Your task to perform on an android device: change notification settings in the gmail app Image 0: 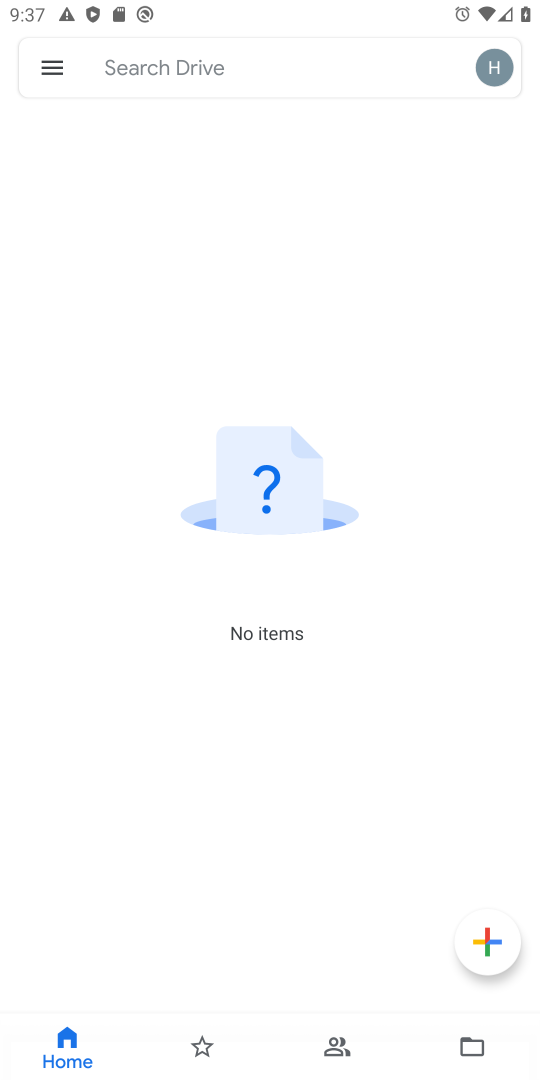
Step 0: press home button
Your task to perform on an android device: change notification settings in the gmail app Image 1: 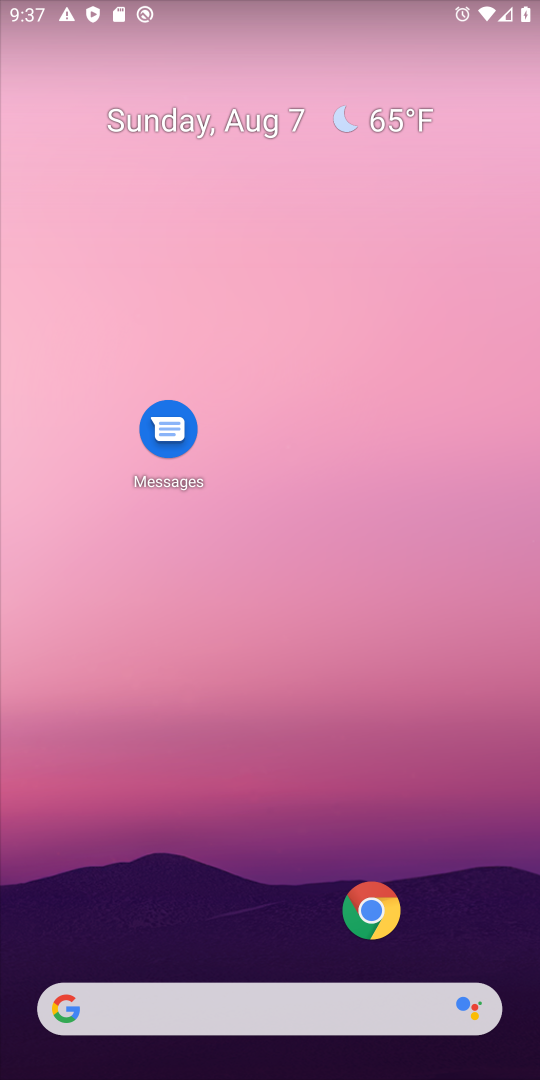
Step 1: drag from (233, 734) to (233, 388)
Your task to perform on an android device: change notification settings in the gmail app Image 2: 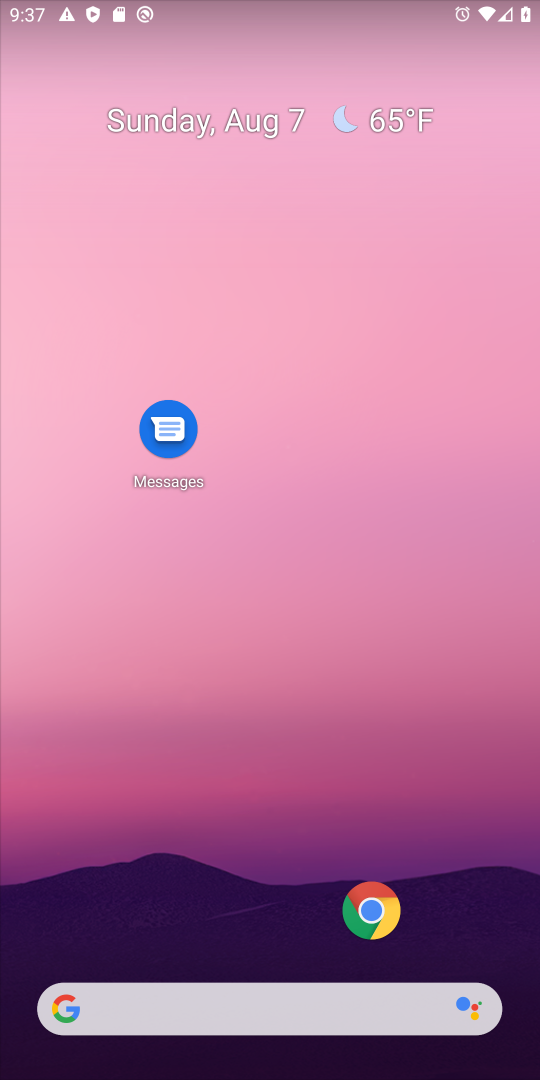
Step 2: drag from (216, 875) to (253, 534)
Your task to perform on an android device: change notification settings in the gmail app Image 3: 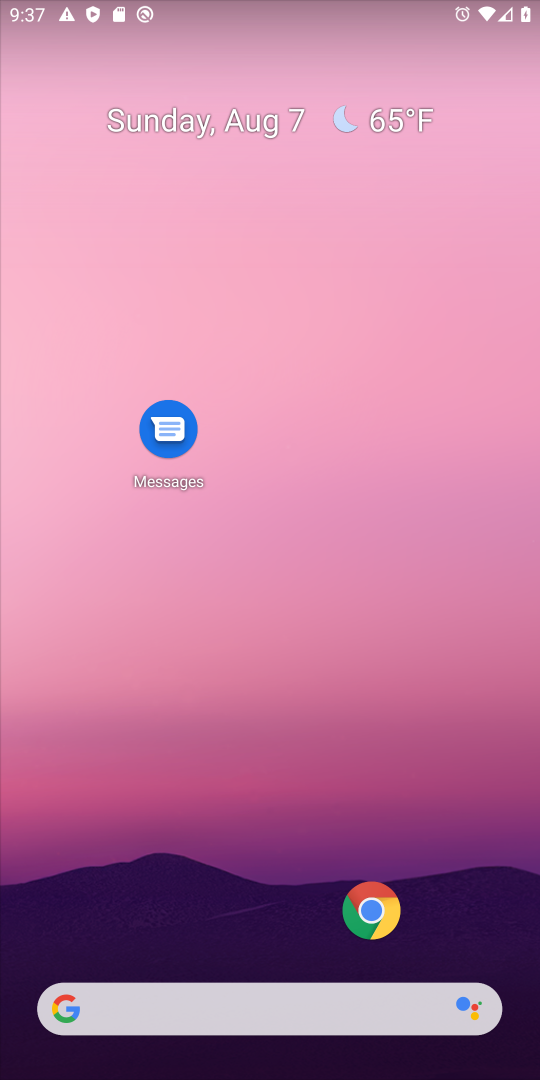
Step 3: drag from (260, 953) to (260, 545)
Your task to perform on an android device: change notification settings in the gmail app Image 4: 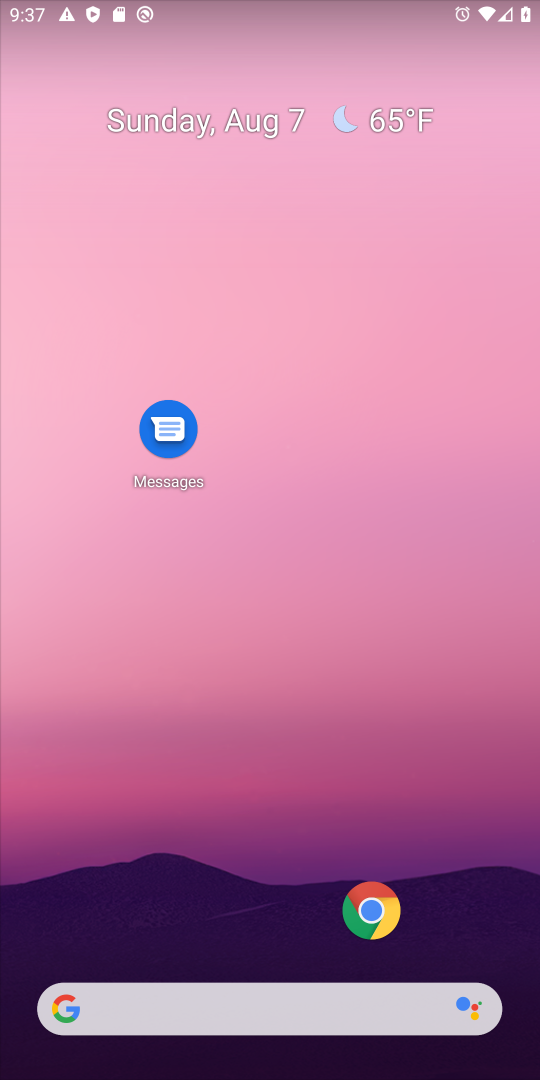
Step 4: drag from (243, 987) to (293, 420)
Your task to perform on an android device: change notification settings in the gmail app Image 5: 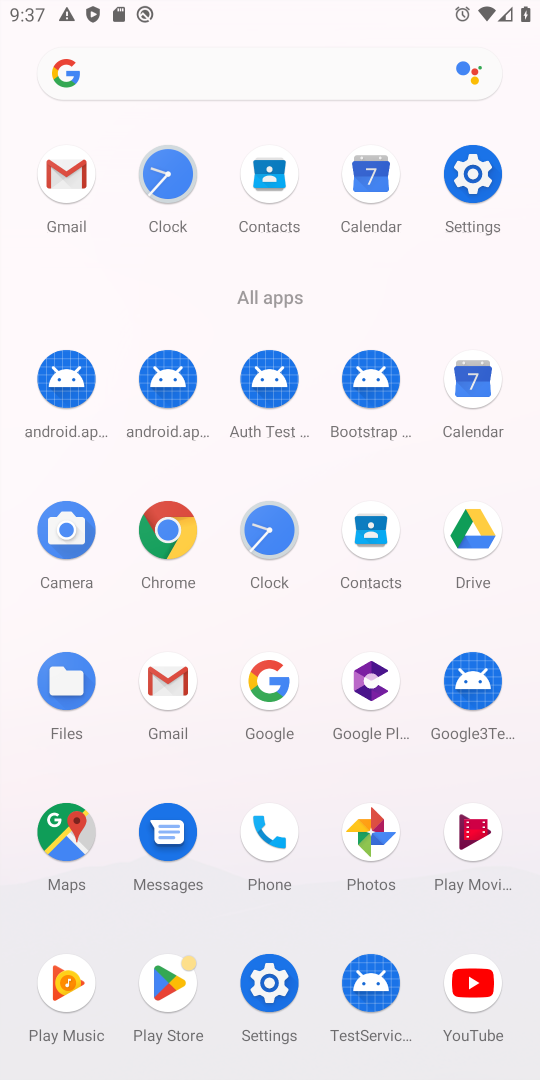
Step 5: click (165, 701)
Your task to perform on an android device: change notification settings in the gmail app Image 6: 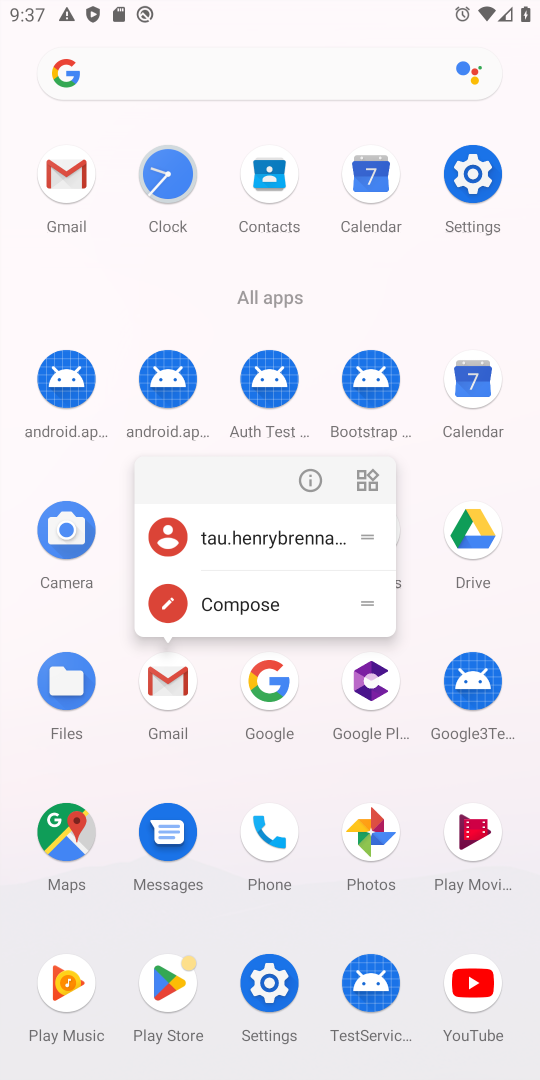
Step 6: click (165, 672)
Your task to perform on an android device: change notification settings in the gmail app Image 7: 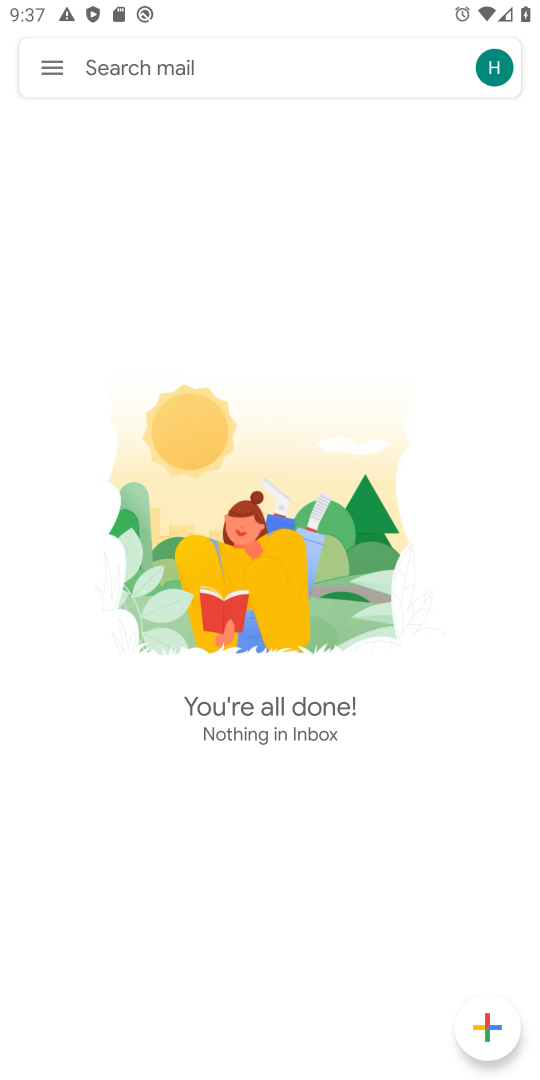
Step 7: click (42, 77)
Your task to perform on an android device: change notification settings in the gmail app Image 8: 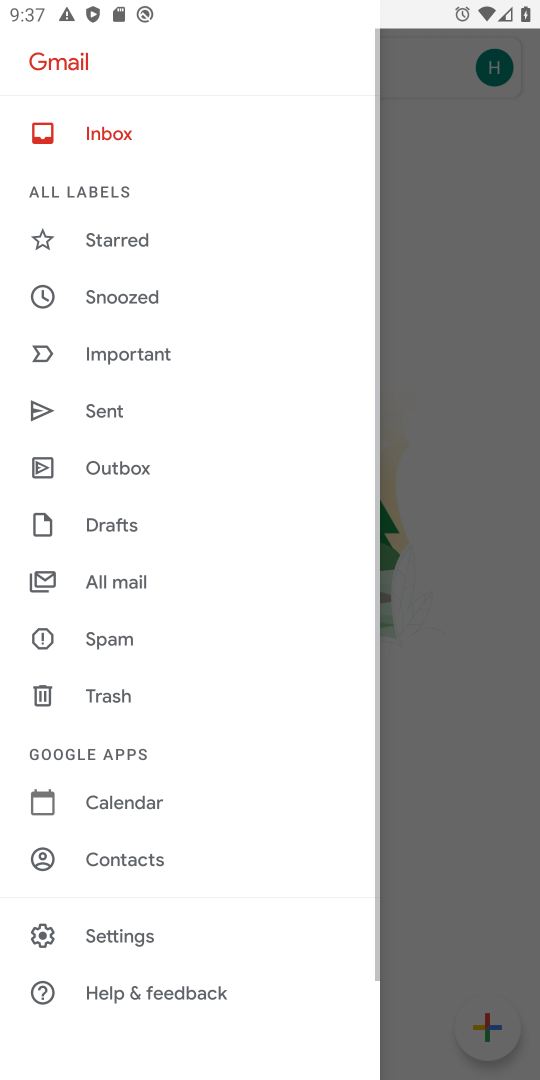
Step 8: click (94, 940)
Your task to perform on an android device: change notification settings in the gmail app Image 9: 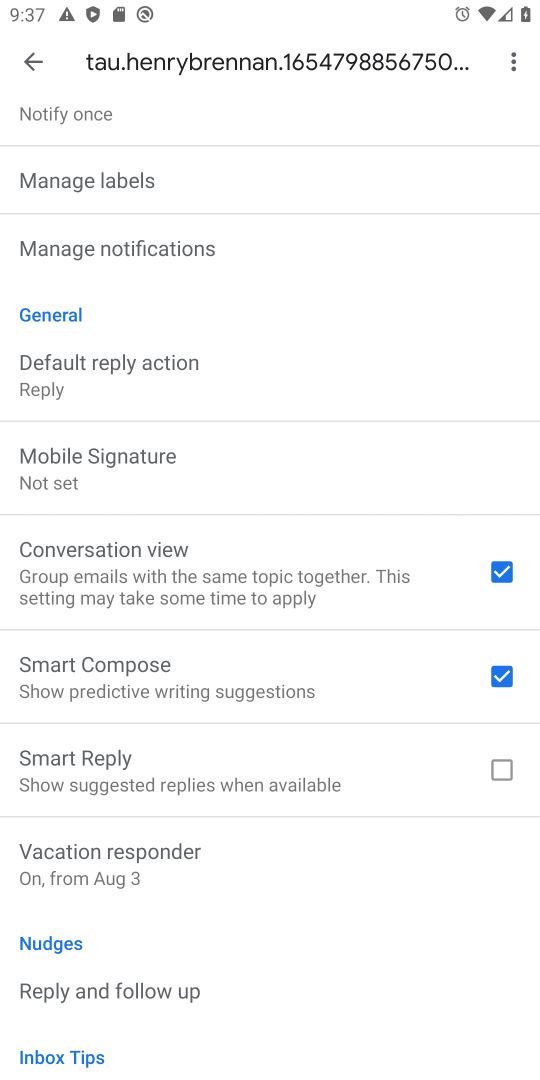
Step 9: drag from (74, 188) to (108, 680)
Your task to perform on an android device: change notification settings in the gmail app Image 10: 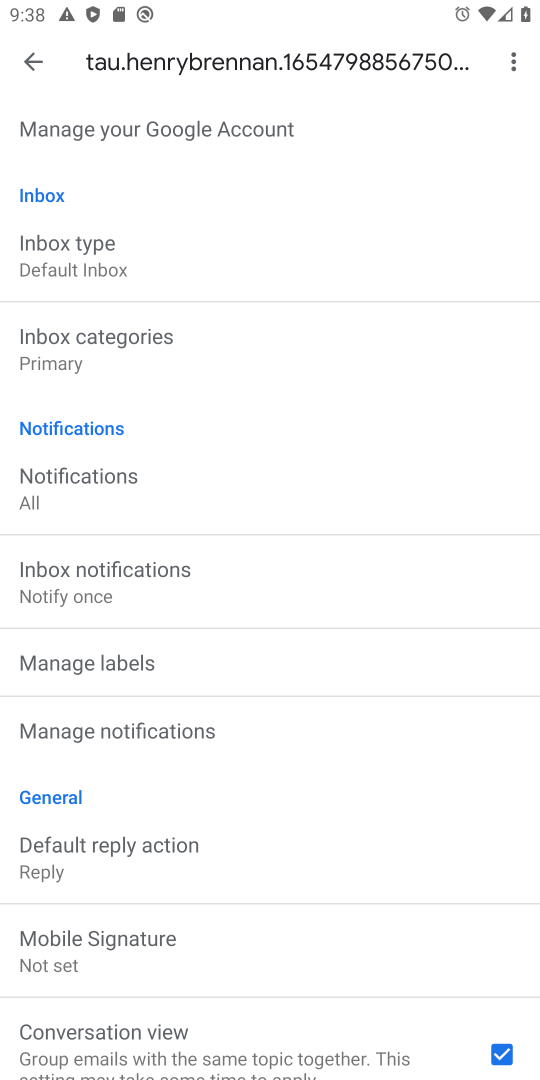
Step 10: click (87, 494)
Your task to perform on an android device: change notification settings in the gmail app Image 11: 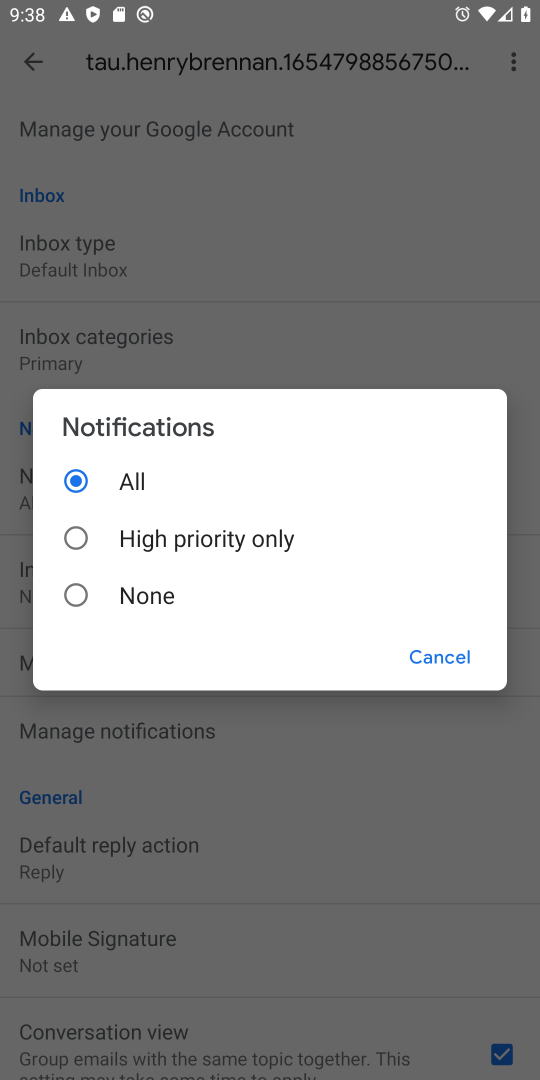
Step 11: click (153, 548)
Your task to perform on an android device: change notification settings in the gmail app Image 12: 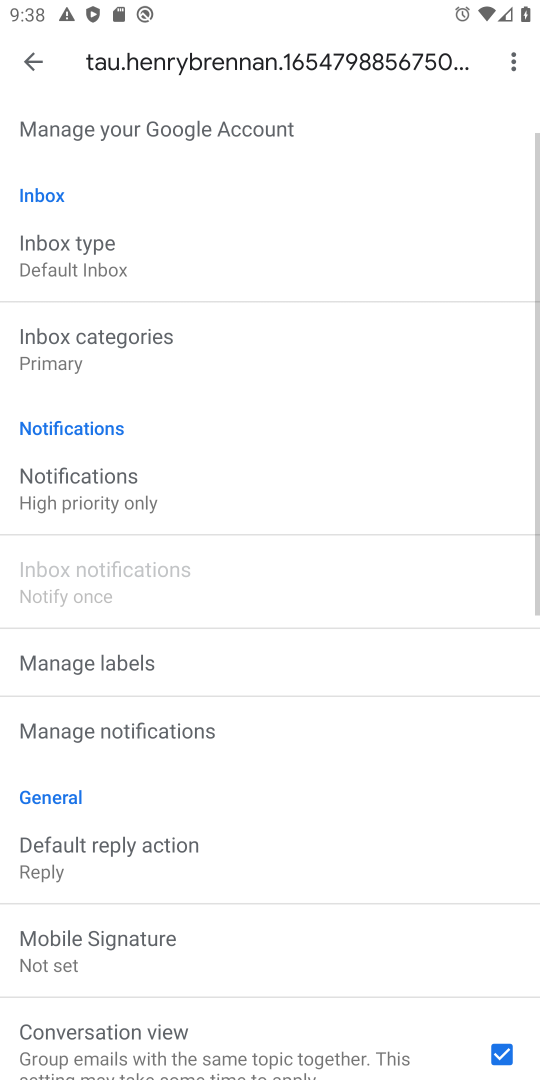
Step 12: task complete